Your task to perform on an android device: toggle translation in the chrome app Image 0: 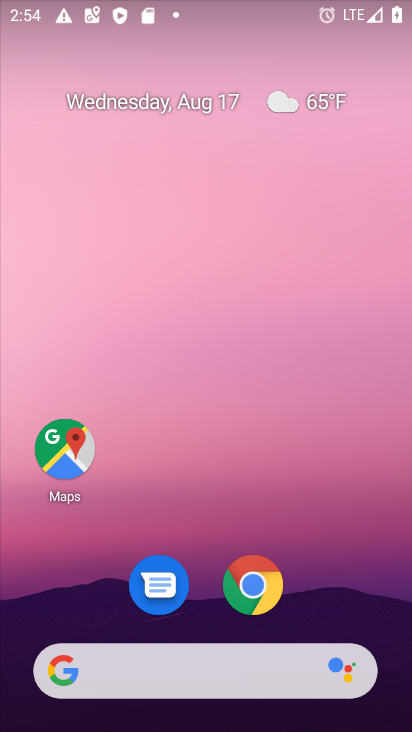
Step 0: click (256, 581)
Your task to perform on an android device: toggle translation in the chrome app Image 1: 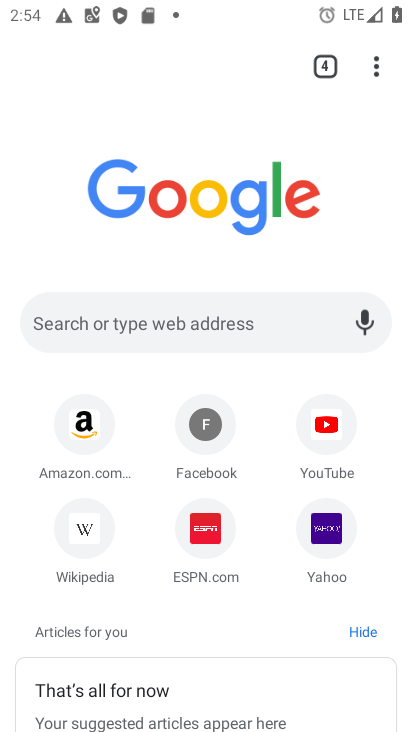
Step 1: click (377, 75)
Your task to perform on an android device: toggle translation in the chrome app Image 2: 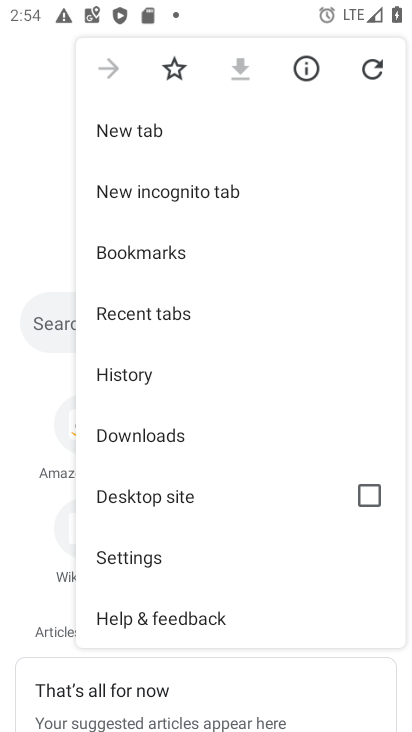
Step 2: click (164, 561)
Your task to perform on an android device: toggle translation in the chrome app Image 3: 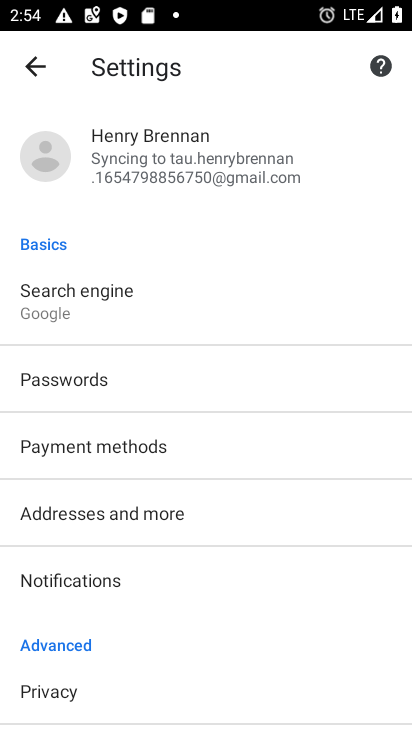
Step 3: drag from (211, 567) to (272, 125)
Your task to perform on an android device: toggle translation in the chrome app Image 4: 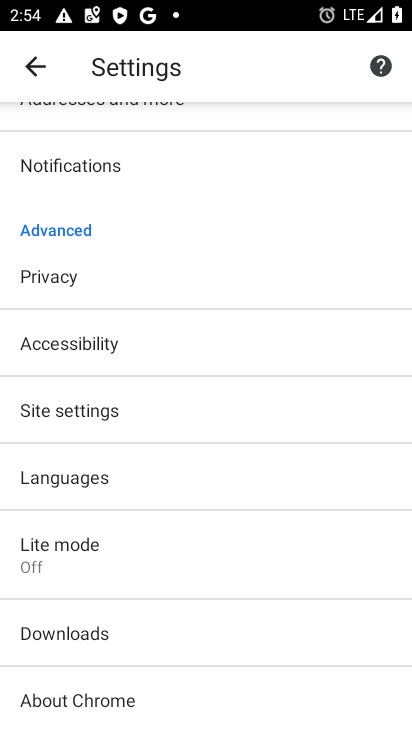
Step 4: click (181, 479)
Your task to perform on an android device: toggle translation in the chrome app Image 5: 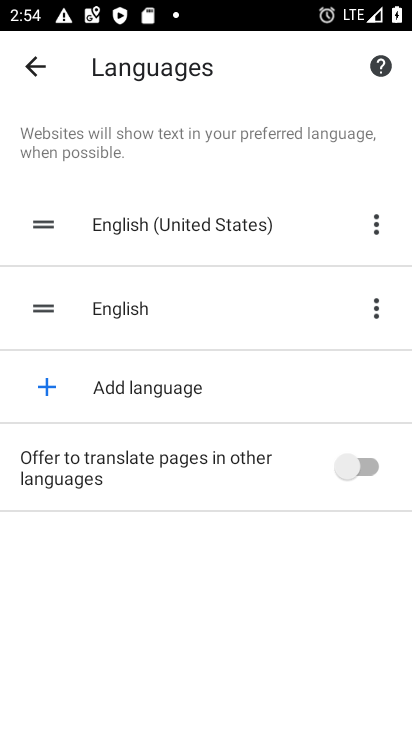
Step 5: click (358, 457)
Your task to perform on an android device: toggle translation in the chrome app Image 6: 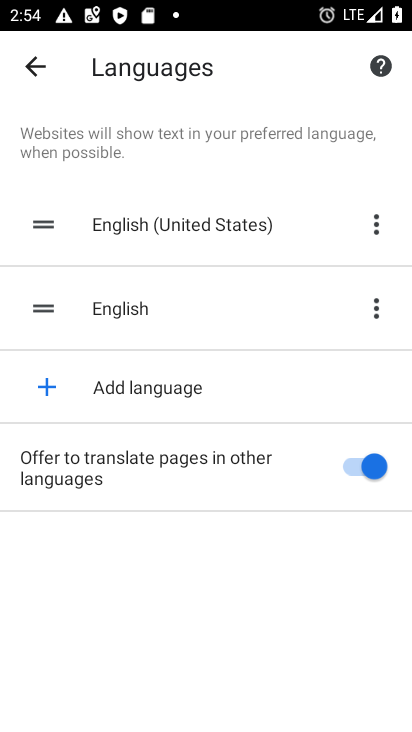
Step 6: task complete